Your task to perform on an android device: Go to battery settings Image 0: 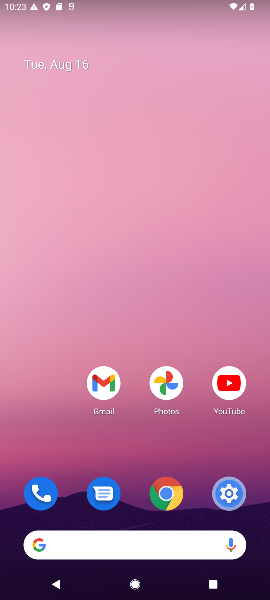
Step 0: click (230, 494)
Your task to perform on an android device: Go to battery settings Image 1: 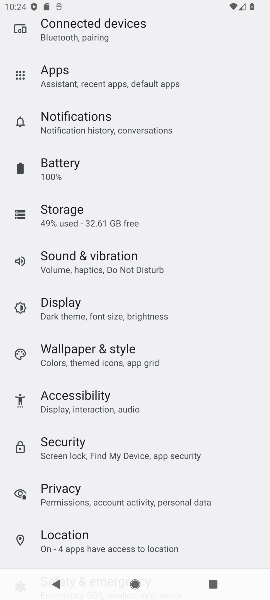
Step 1: click (90, 175)
Your task to perform on an android device: Go to battery settings Image 2: 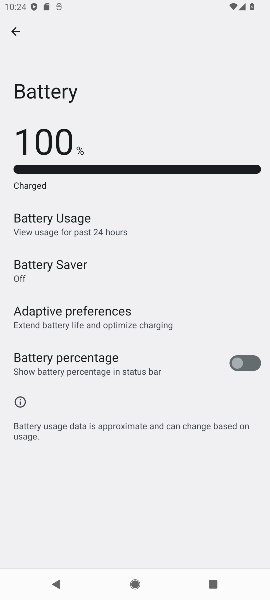
Step 2: task complete